Your task to perform on an android device: show emergency info Image 0: 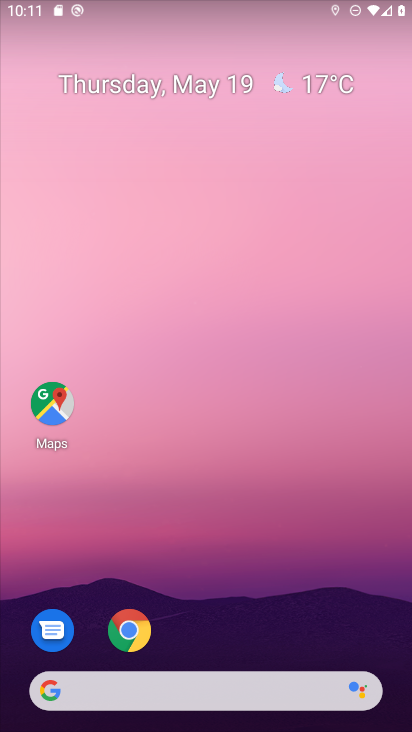
Step 0: drag from (246, 598) to (171, 233)
Your task to perform on an android device: show emergency info Image 1: 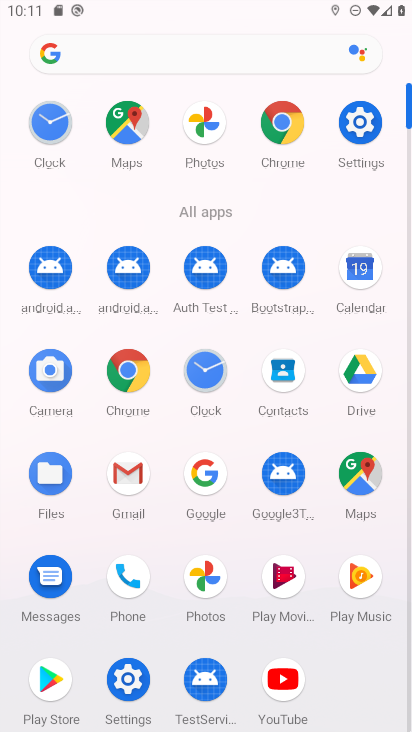
Step 1: click (122, 673)
Your task to perform on an android device: show emergency info Image 2: 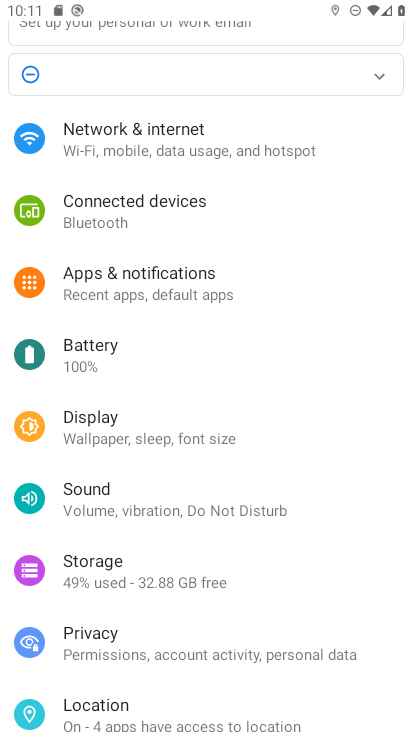
Step 2: drag from (185, 629) to (139, 316)
Your task to perform on an android device: show emergency info Image 3: 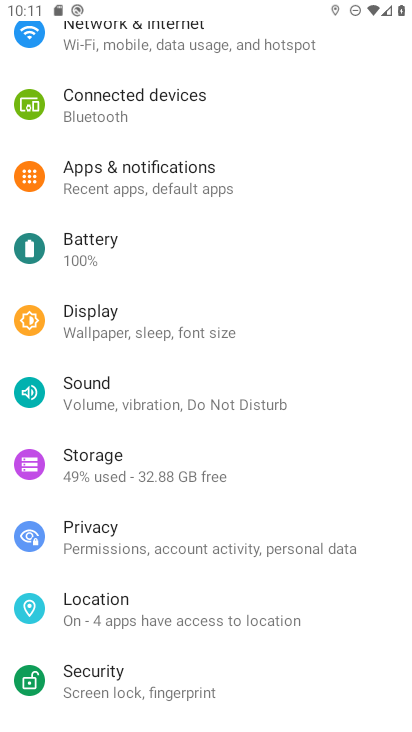
Step 3: drag from (185, 652) to (138, 247)
Your task to perform on an android device: show emergency info Image 4: 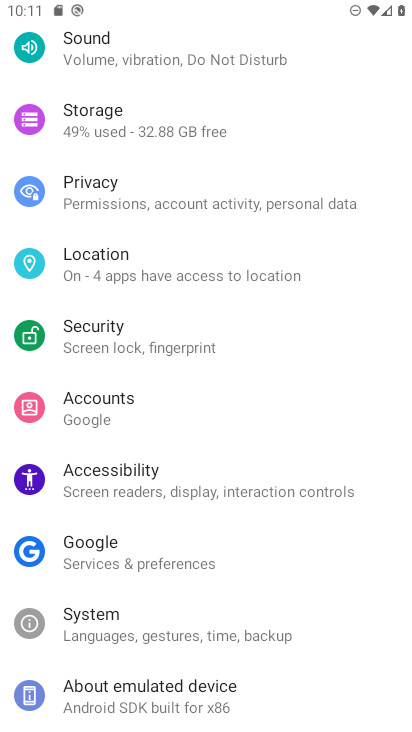
Step 4: click (153, 692)
Your task to perform on an android device: show emergency info Image 5: 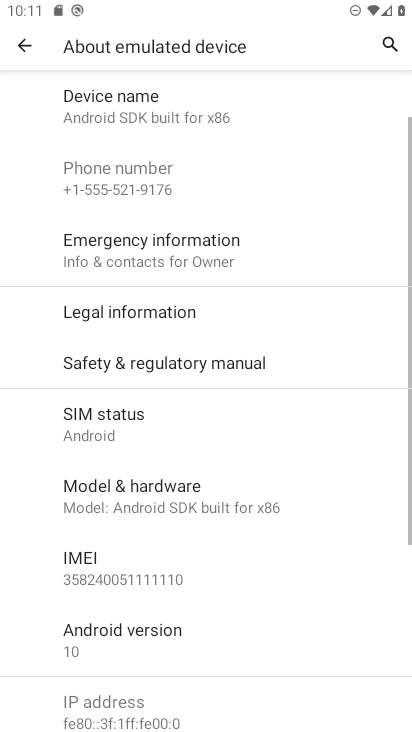
Step 5: click (112, 239)
Your task to perform on an android device: show emergency info Image 6: 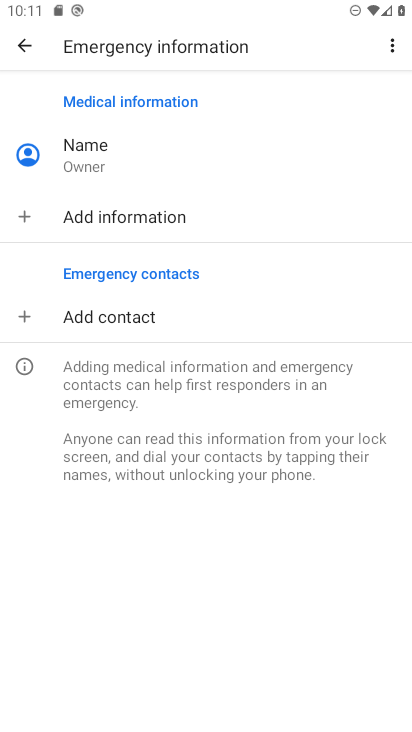
Step 6: task complete